Your task to perform on an android device: Show me recent news Image 0: 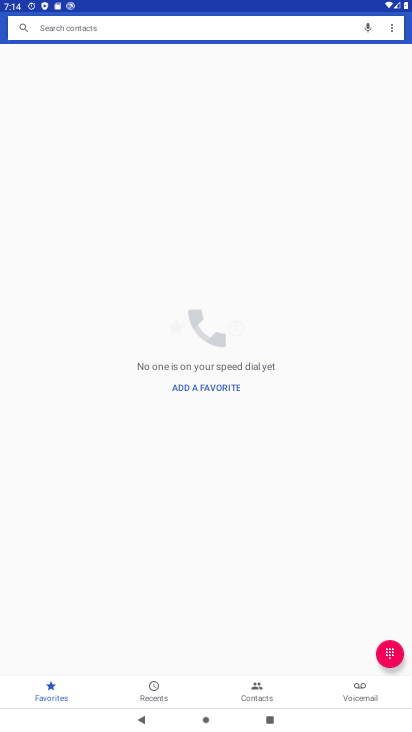
Step 0: press home button
Your task to perform on an android device: Show me recent news Image 1: 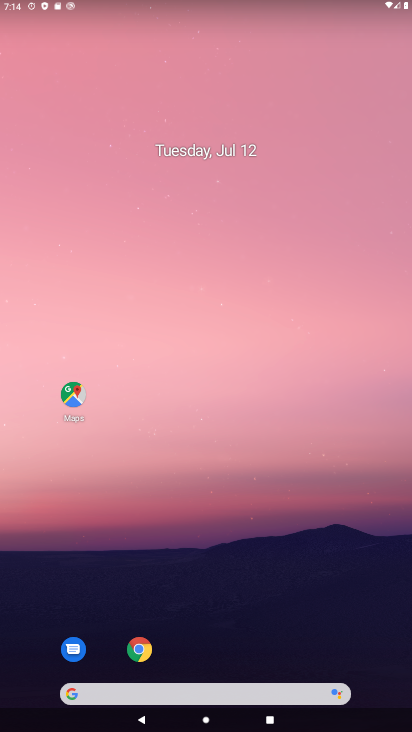
Step 1: drag from (194, 694) to (215, 129)
Your task to perform on an android device: Show me recent news Image 2: 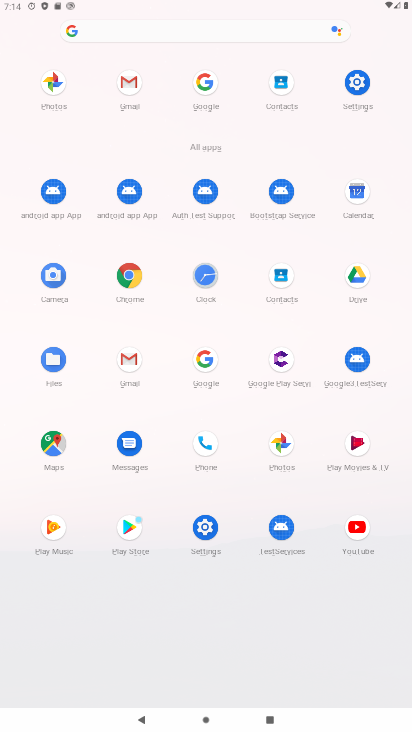
Step 2: click (204, 83)
Your task to perform on an android device: Show me recent news Image 3: 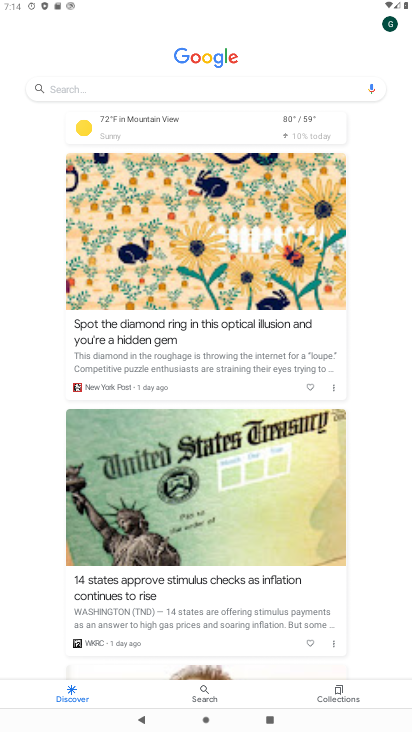
Step 3: click (188, 88)
Your task to perform on an android device: Show me recent news Image 4: 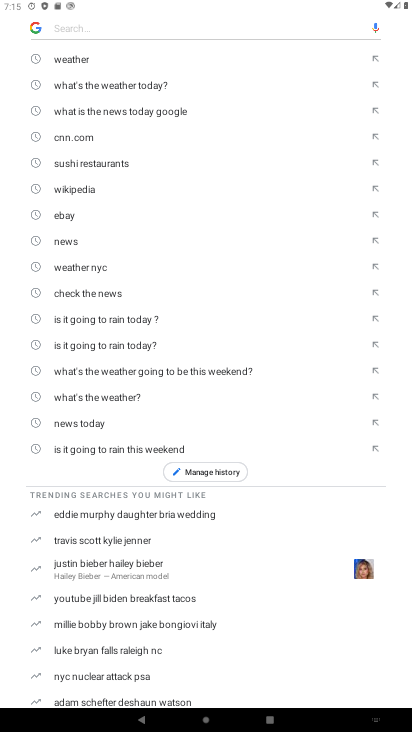
Step 4: type "recent news"
Your task to perform on an android device: Show me recent news Image 5: 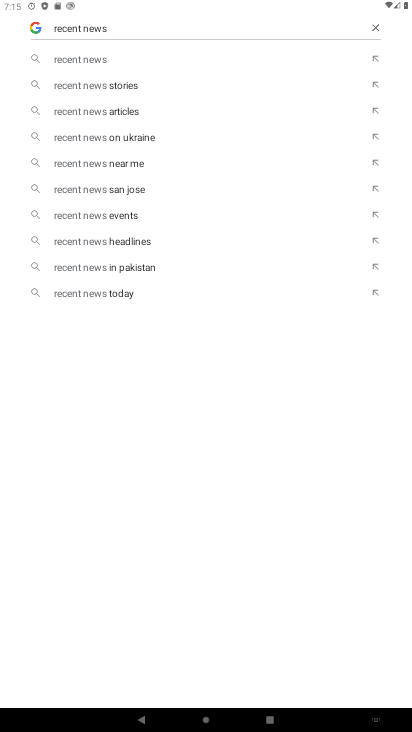
Step 5: click (96, 60)
Your task to perform on an android device: Show me recent news Image 6: 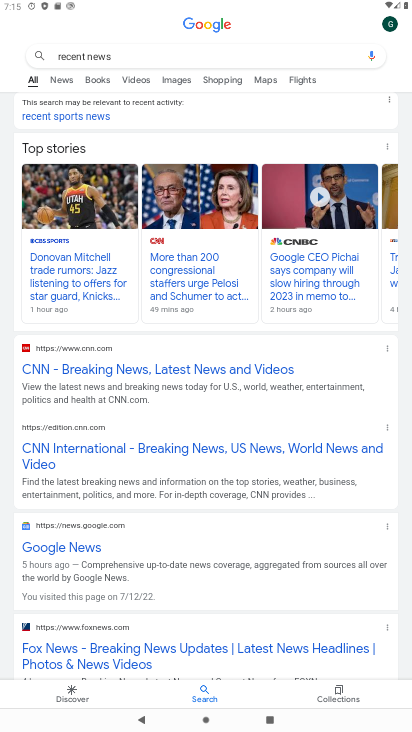
Step 6: click (67, 296)
Your task to perform on an android device: Show me recent news Image 7: 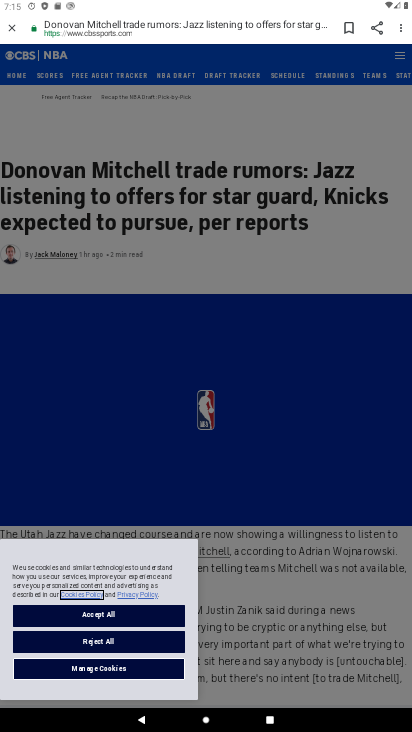
Step 7: task complete